Your task to perform on an android device: Go to Wikipedia Image 0: 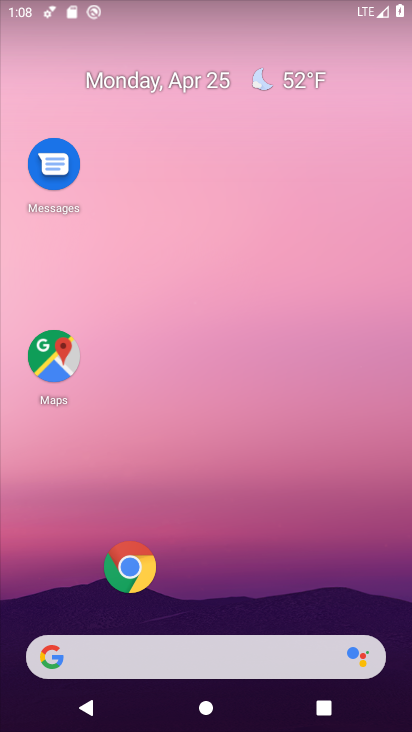
Step 0: click (242, 147)
Your task to perform on an android device: Go to Wikipedia Image 1: 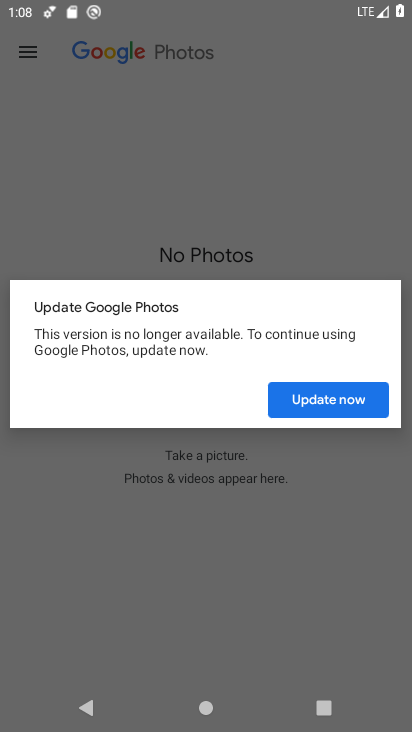
Step 1: press home button
Your task to perform on an android device: Go to Wikipedia Image 2: 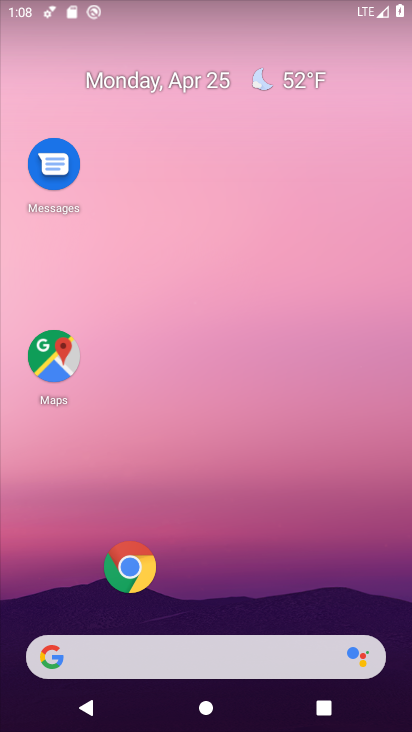
Step 2: drag from (210, 669) to (198, 0)
Your task to perform on an android device: Go to Wikipedia Image 3: 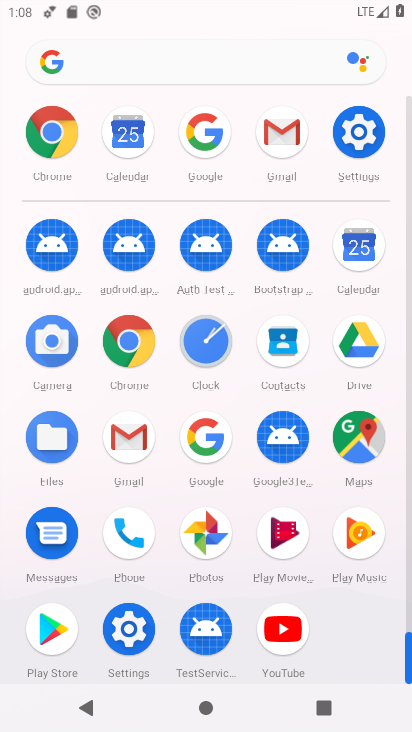
Step 3: click (130, 358)
Your task to perform on an android device: Go to Wikipedia Image 4: 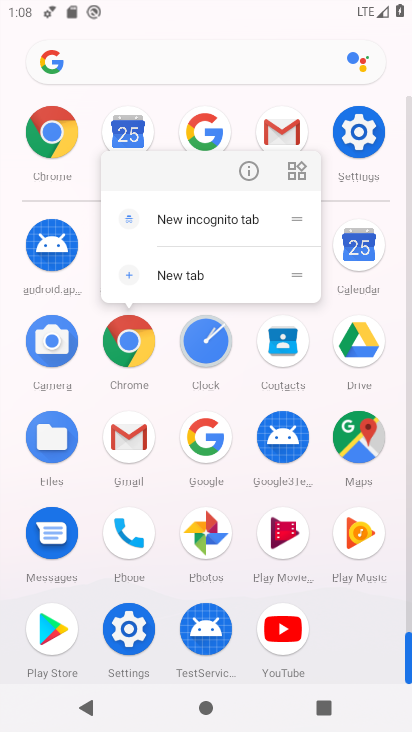
Step 4: click (131, 358)
Your task to perform on an android device: Go to Wikipedia Image 5: 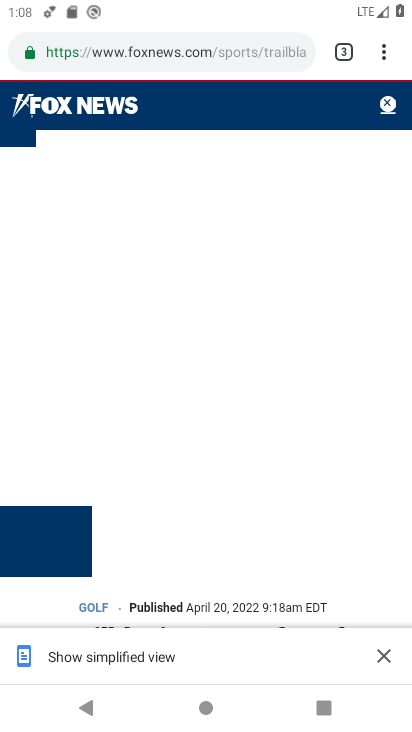
Step 5: click (264, 52)
Your task to perform on an android device: Go to Wikipedia Image 6: 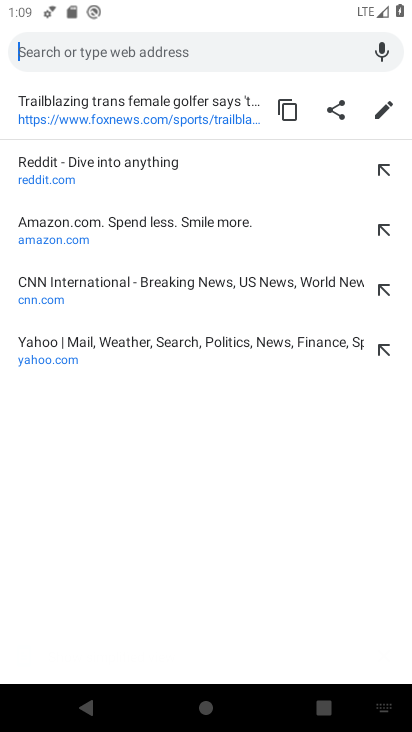
Step 6: type "wikipedia.com"
Your task to perform on an android device: Go to Wikipedia Image 7: 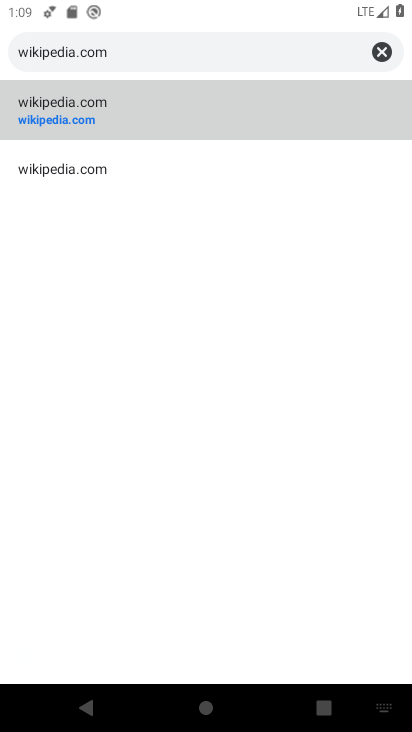
Step 7: click (273, 106)
Your task to perform on an android device: Go to Wikipedia Image 8: 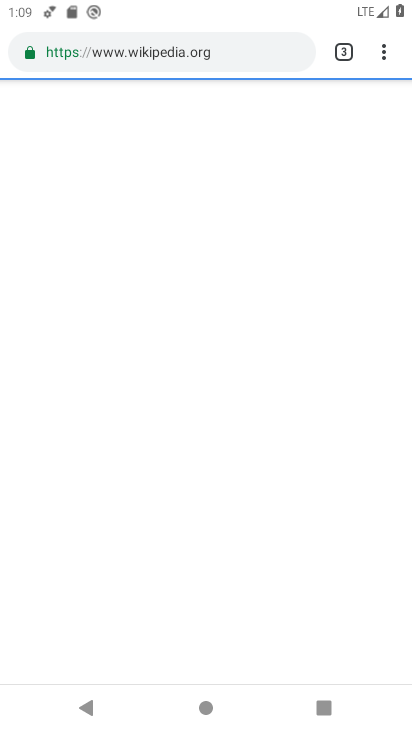
Step 8: task complete